Your task to perform on an android device: Do I have any events this weekend? Image 0: 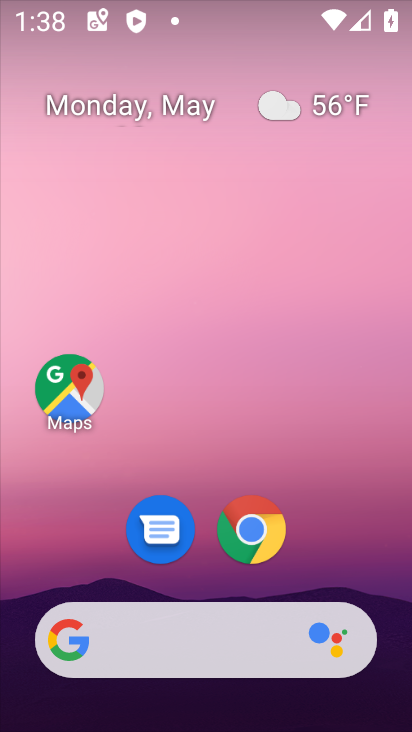
Step 0: drag from (321, 572) to (312, 39)
Your task to perform on an android device: Do I have any events this weekend? Image 1: 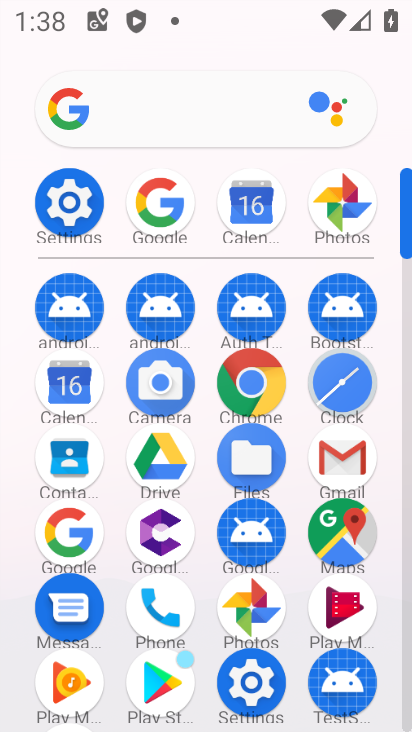
Step 1: click (250, 204)
Your task to perform on an android device: Do I have any events this weekend? Image 2: 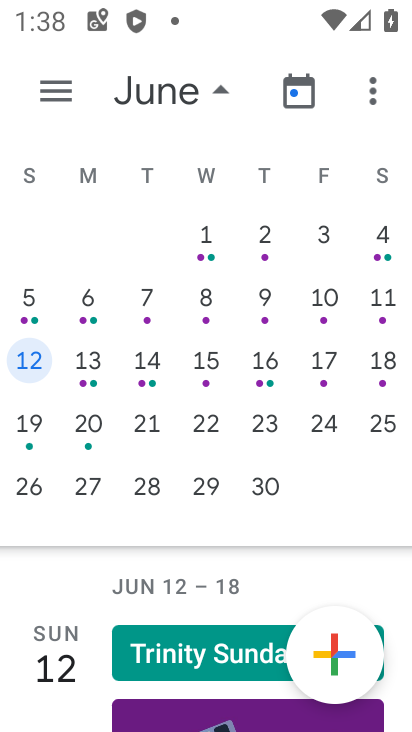
Step 2: drag from (41, 271) to (402, 255)
Your task to perform on an android device: Do I have any events this weekend? Image 3: 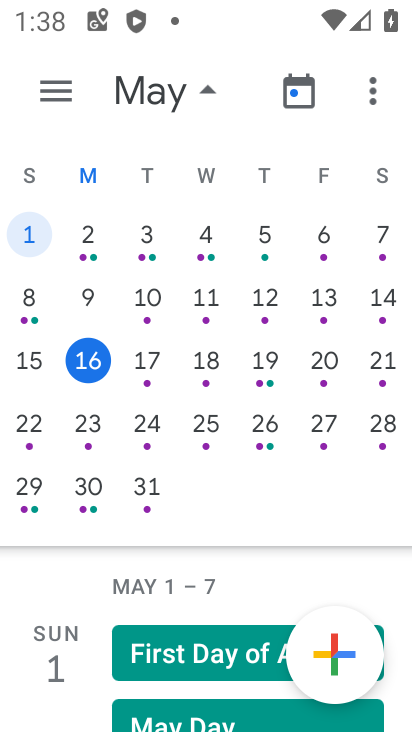
Step 3: click (381, 357)
Your task to perform on an android device: Do I have any events this weekend? Image 4: 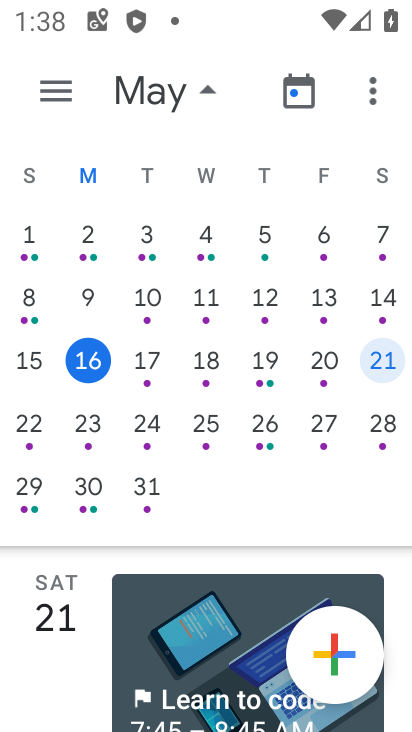
Step 4: task complete